Your task to perform on an android device: check battery use Image 0: 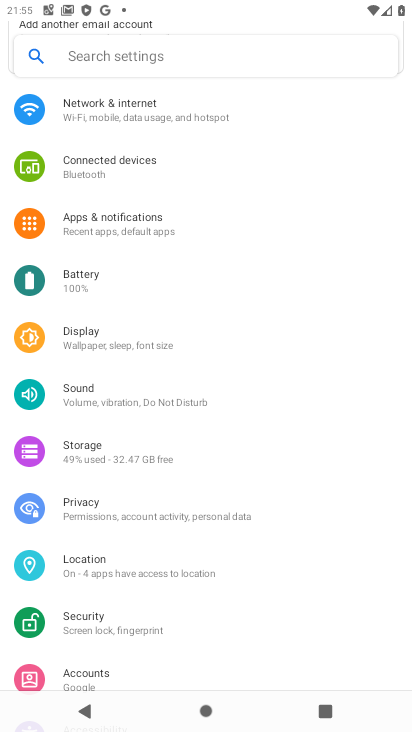
Step 0: click (83, 289)
Your task to perform on an android device: check battery use Image 1: 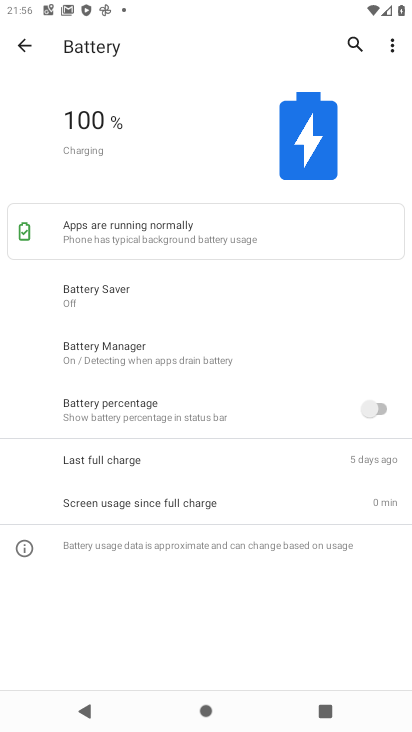
Step 1: click (398, 32)
Your task to perform on an android device: check battery use Image 2: 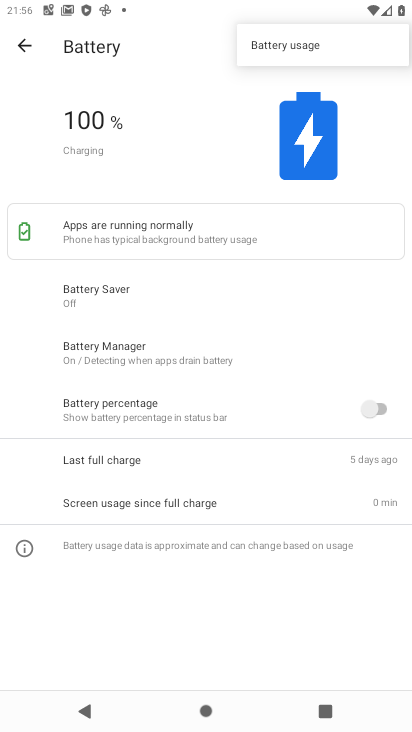
Step 2: click (365, 53)
Your task to perform on an android device: check battery use Image 3: 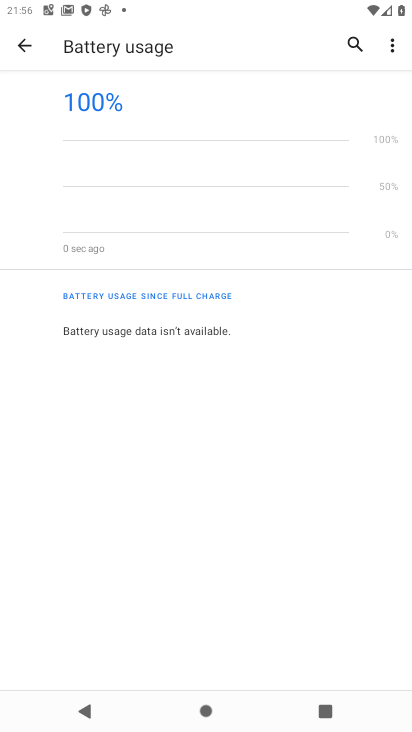
Step 3: task complete